Your task to perform on an android device: change the clock display to show seconds Image 0: 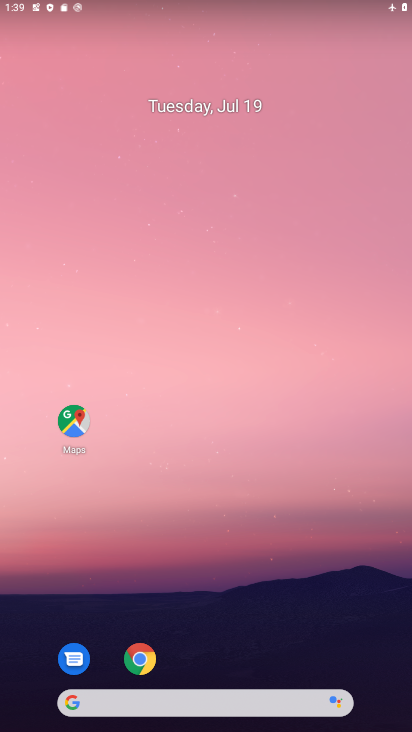
Step 0: press home button
Your task to perform on an android device: change the clock display to show seconds Image 1: 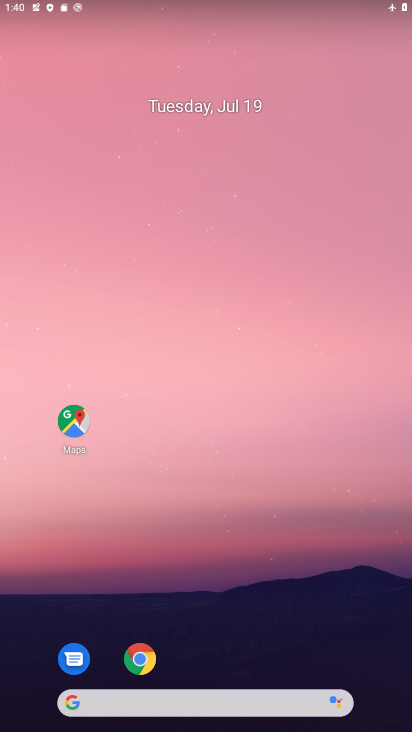
Step 1: drag from (294, 646) to (290, 52)
Your task to perform on an android device: change the clock display to show seconds Image 2: 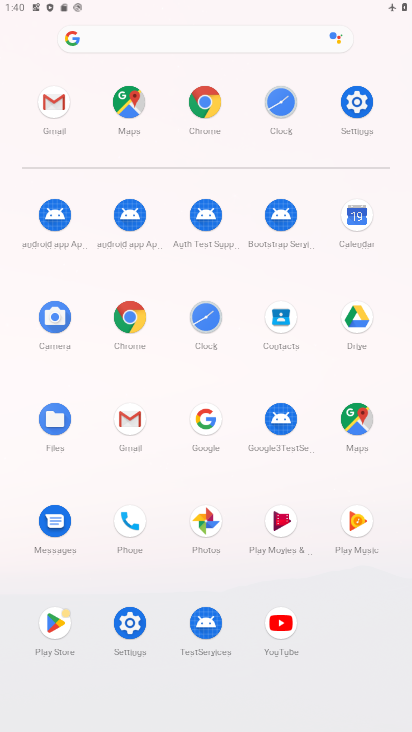
Step 2: click (216, 337)
Your task to perform on an android device: change the clock display to show seconds Image 3: 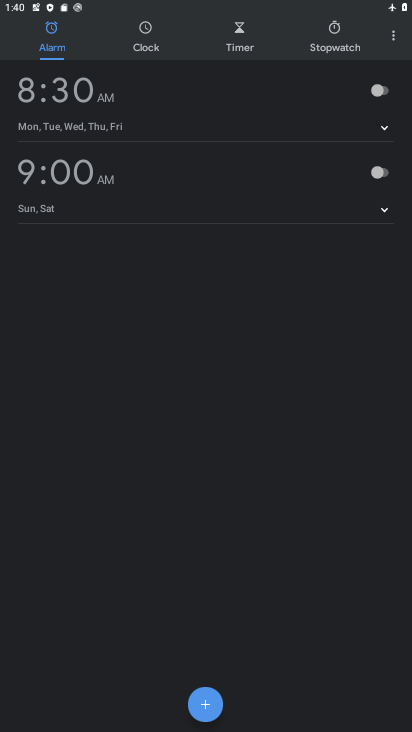
Step 3: click (405, 38)
Your task to perform on an android device: change the clock display to show seconds Image 4: 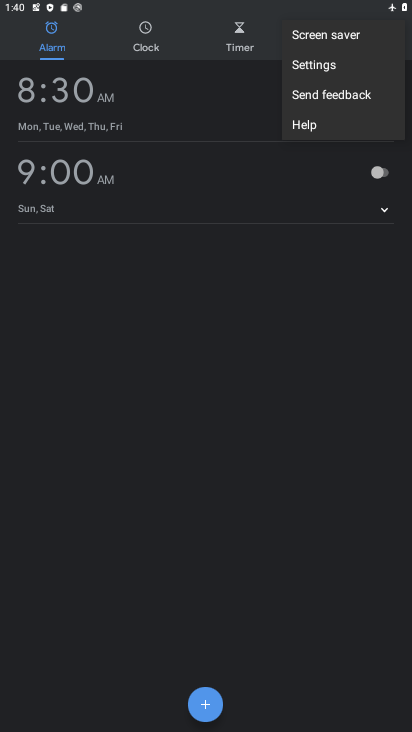
Step 4: click (325, 75)
Your task to perform on an android device: change the clock display to show seconds Image 5: 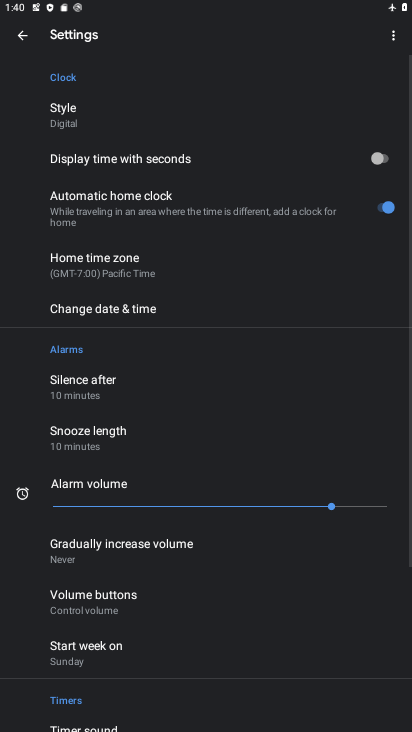
Step 5: click (313, 180)
Your task to perform on an android device: change the clock display to show seconds Image 6: 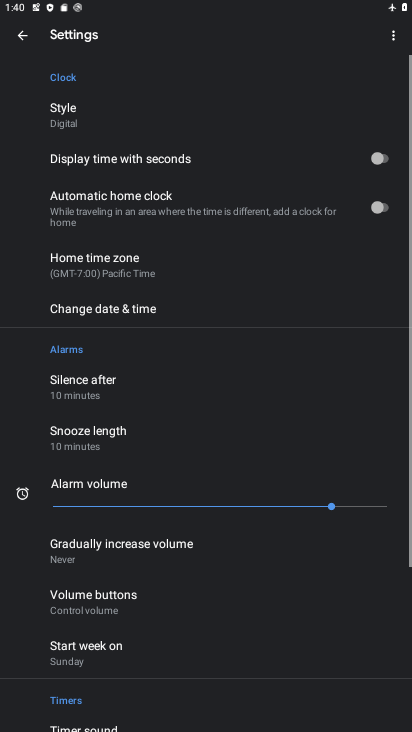
Step 6: click (313, 180)
Your task to perform on an android device: change the clock display to show seconds Image 7: 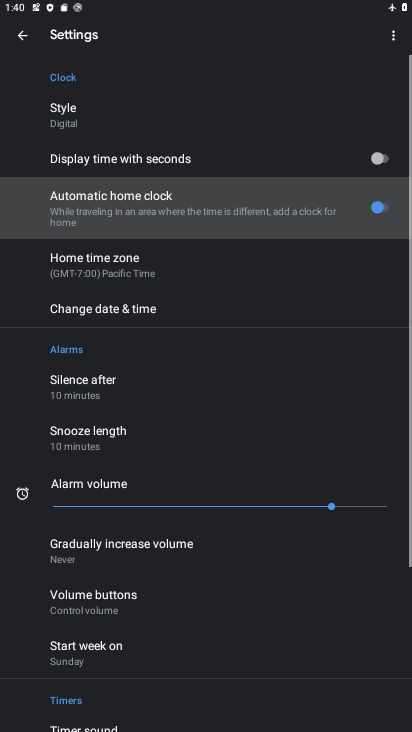
Step 7: click (317, 159)
Your task to perform on an android device: change the clock display to show seconds Image 8: 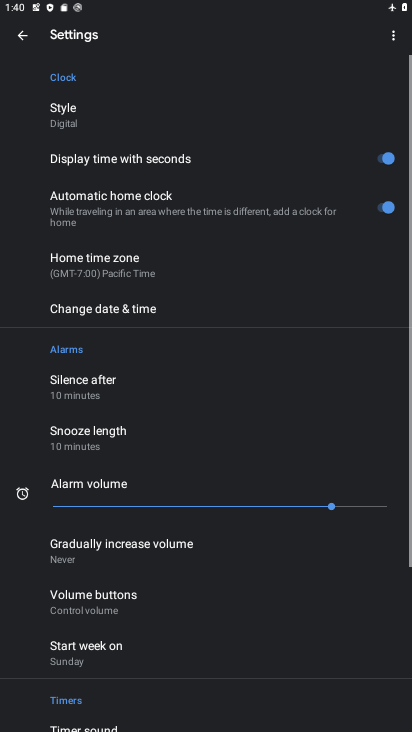
Step 8: task complete